Your task to perform on an android device: turn off notifications in google photos Image 0: 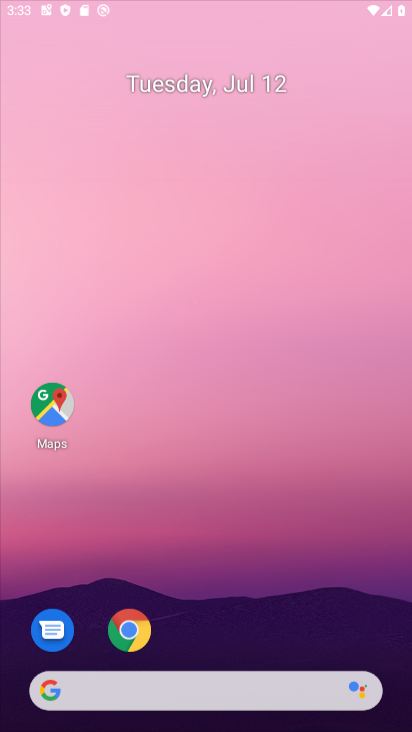
Step 0: click (174, 67)
Your task to perform on an android device: turn off notifications in google photos Image 1: 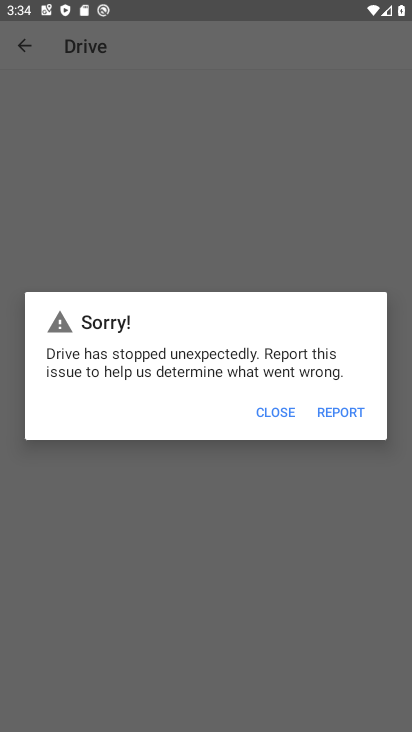
Step 1: click (274, 396)
Your task to perform on an android device: turn off notifications in google photos Image 2: 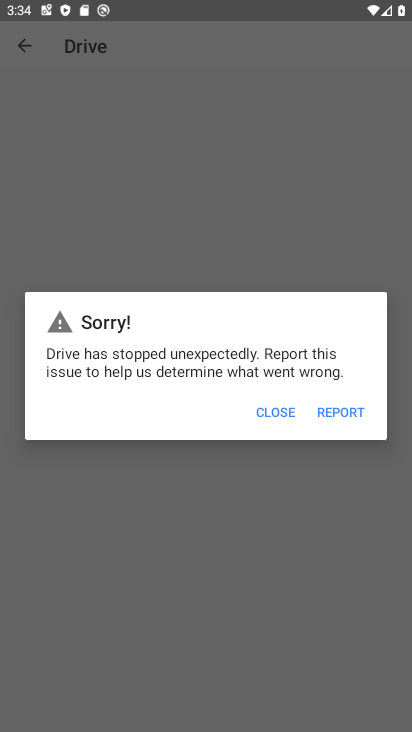
Step 2: click (274, 398)
Your task to perform on an android device: turn off notifications in google photos Image 3: 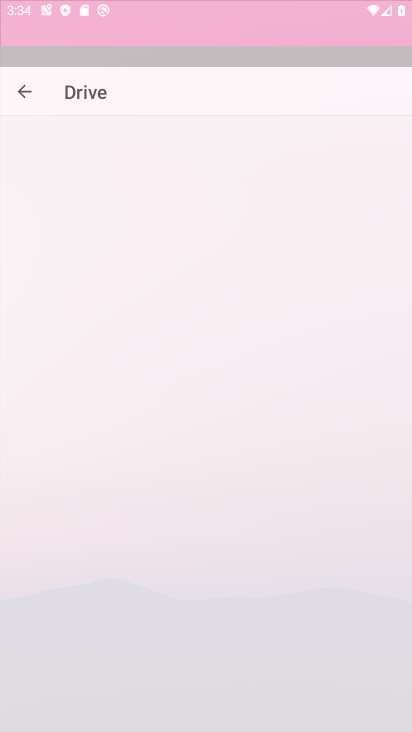
Step 3: click (275, 402)
Your task to perform on an android device: turn off notifications in google photos Image 4: 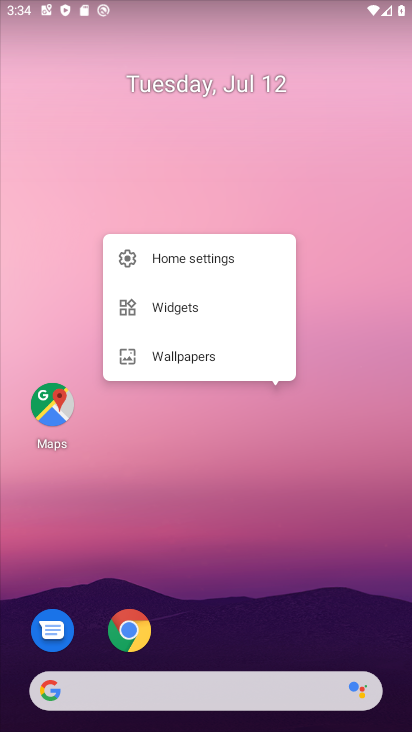
Step 4: drag from (246, 412) to (128, 3)
Your task to perform on an android device: turn off notifications in google photos Image 5: 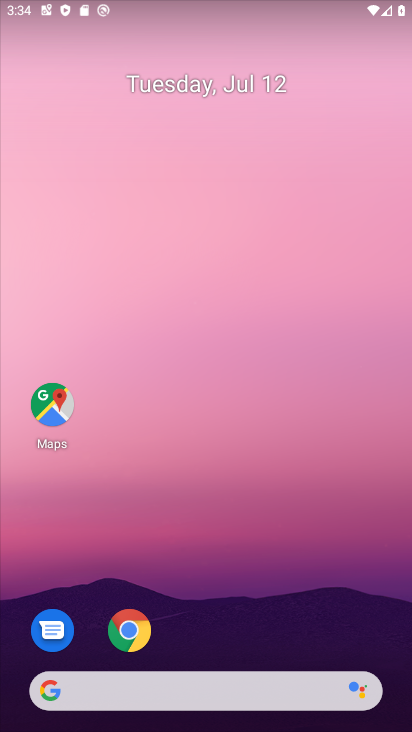
Step 5: drag from (217, 530) to (182, 187)
Your task to perform on an android device: turn off notifications in google photos Image 6: 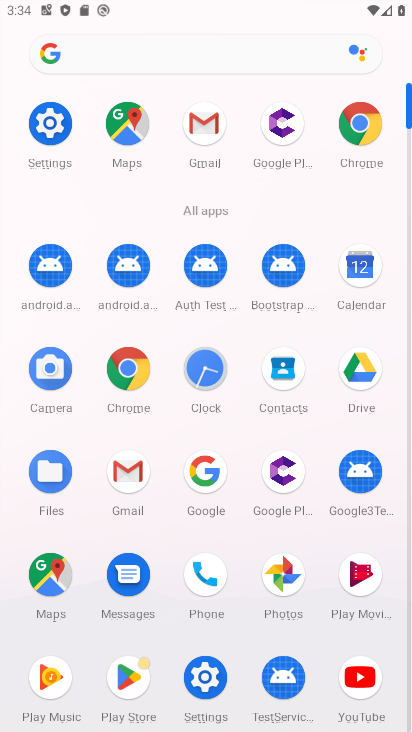
Step 6: click (287, 572)
Your task to perform on an android device: turn off notifications in google photos Image 7: 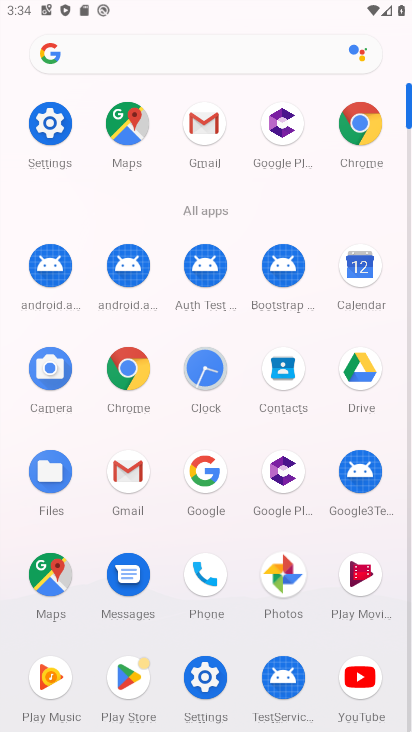
Step 7: click (290, 573)
Your task to perform on an android device: turn off notifications in google photos Image 8: 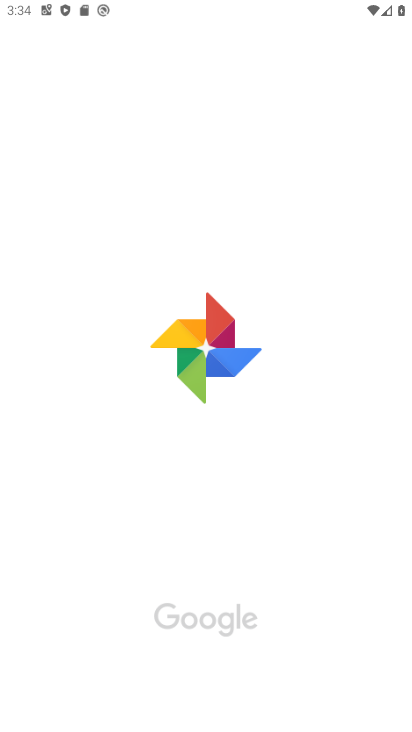
Step 8: click (294, 573)
Your task to perform on an android device: turn off notifications in google photos Image 9: 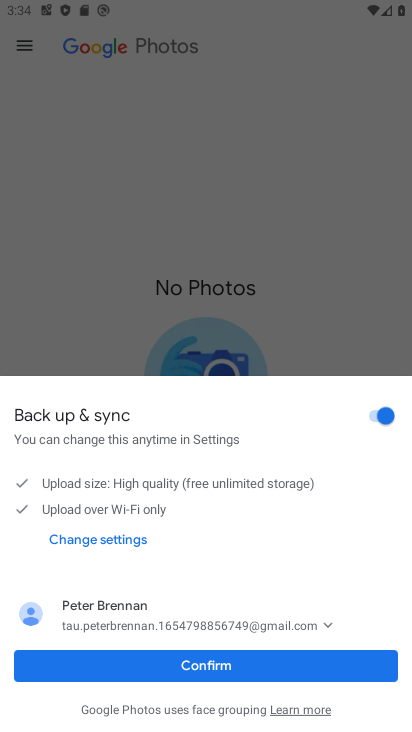
Step 9: click (208, 670)
Your task to perform on an android device: turn off notifications in google photos Image 10: 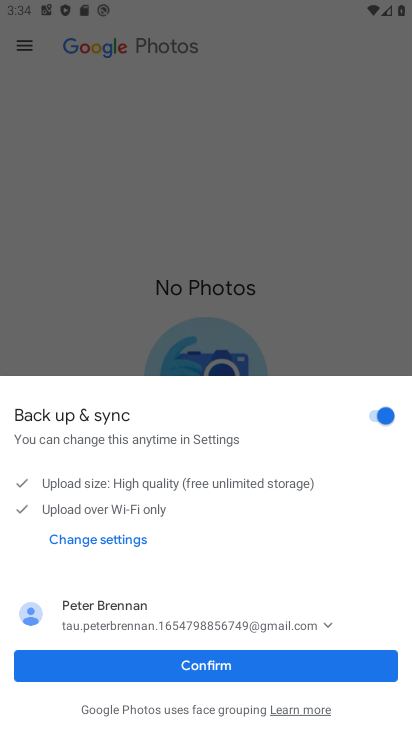
Step 10: click (346, 118)
Your task to perform on an android device: turn off notifications in google photos Image 11: 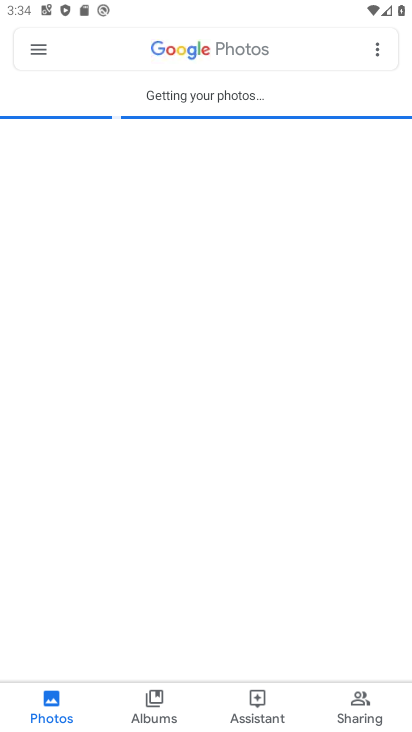
Step 11: click (33, 25)
Your task to perform on an android device: turn off notifications in google photos Image 12: 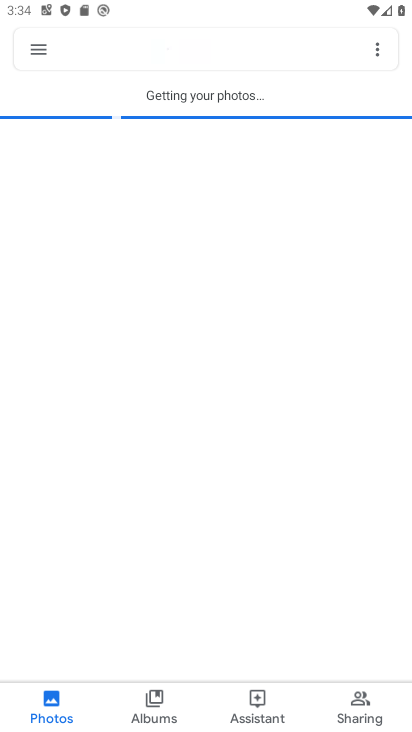
Step 12: click (51, 49)
Your task to perform on an android device: turn off notifications in google photos Image 13: 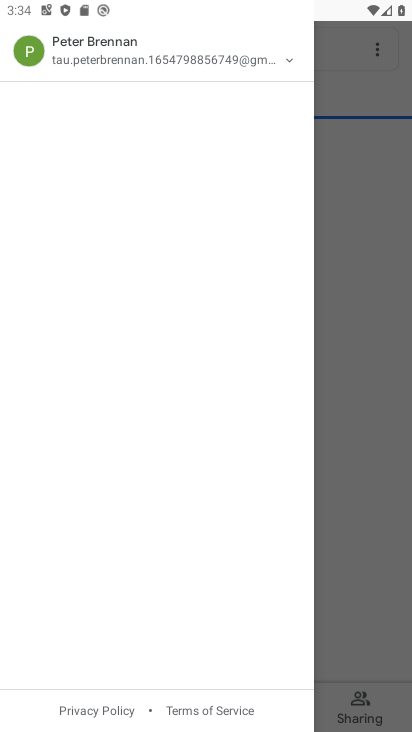
Step 13: click (52, 52)
Your task to perform on an android device: turn off notifications in google photos Image 14: 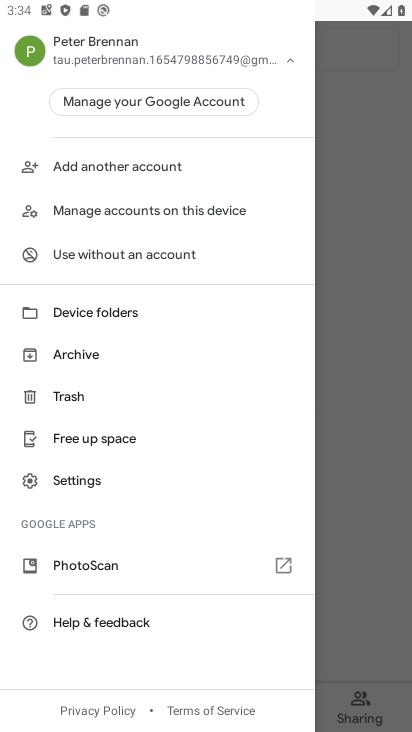
Step 14: click (70, 485)
Your task to perform on an android device: turn off notifications in google photos Image 15: 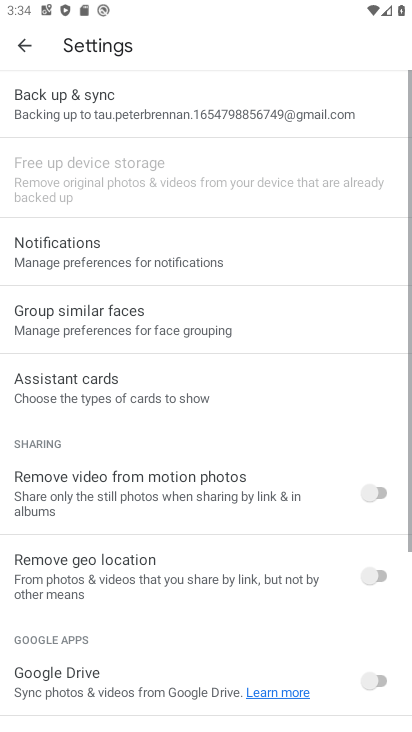
Step 15: click (71, 486)
Your task to perform on an android device: turn off notifications in google photos Image 16: 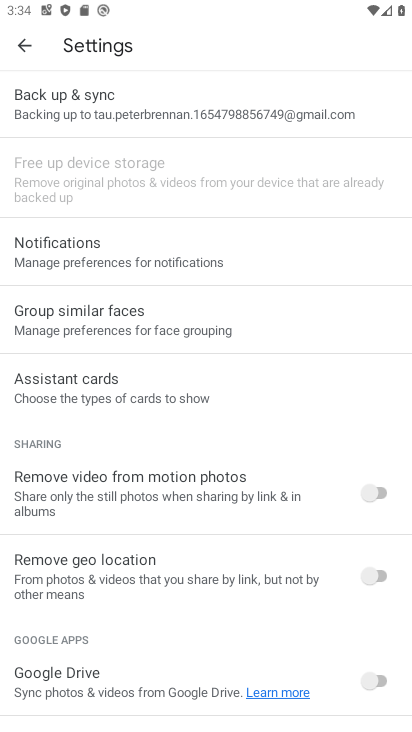
Step 16: click (78, 247)
Your task to perform on an android device: turn off notifications in google photos Image 17: 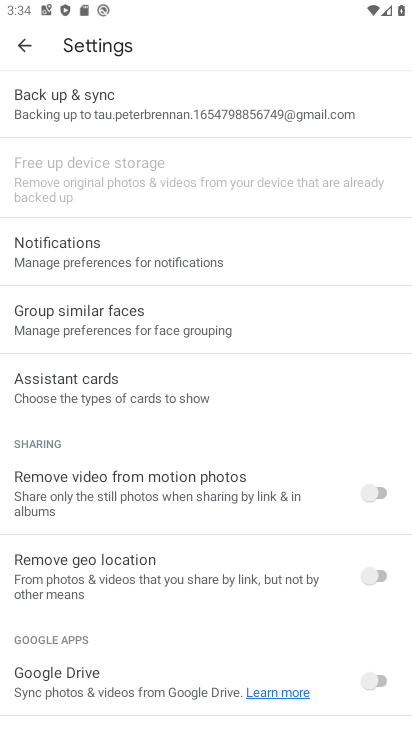
Step 17: click (78, 247)
Your task to perform on an android device: turn off notifications in google photos Image 18: 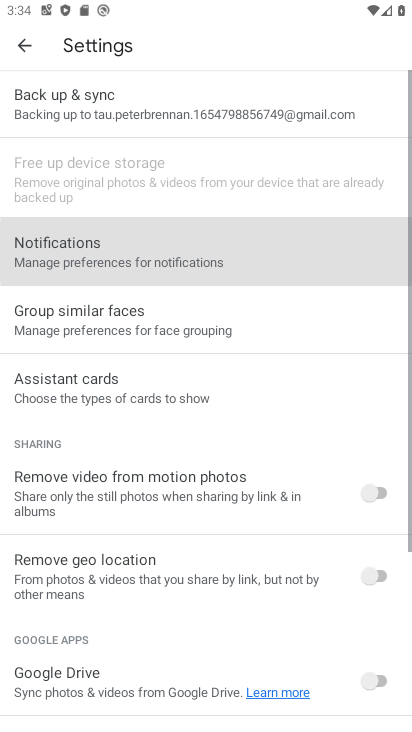
Step 18: click (78, 247)
Your task to perform on an android device: turn off notifications in google photos Image 19: 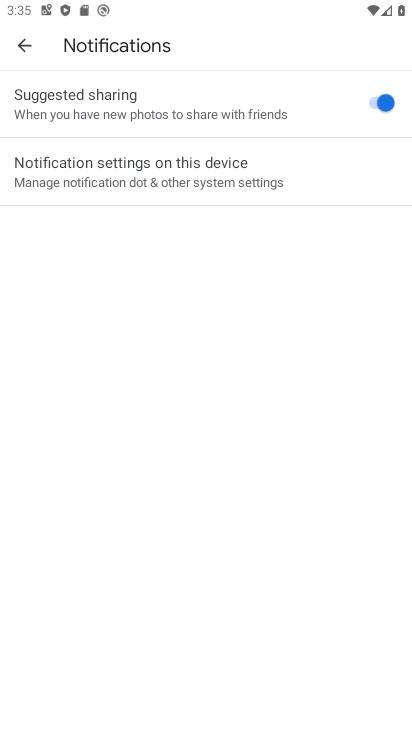
Step 19: click (209, 175)
Your task to perform on an android device: turn off notifications in google photos Image 20: 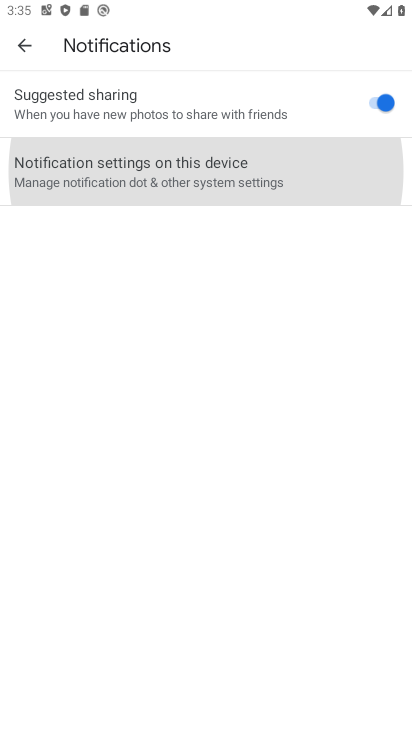
Step 20: click (208, 175)
Your task to perform on an android device: turn off notifications in google photos Image 21: 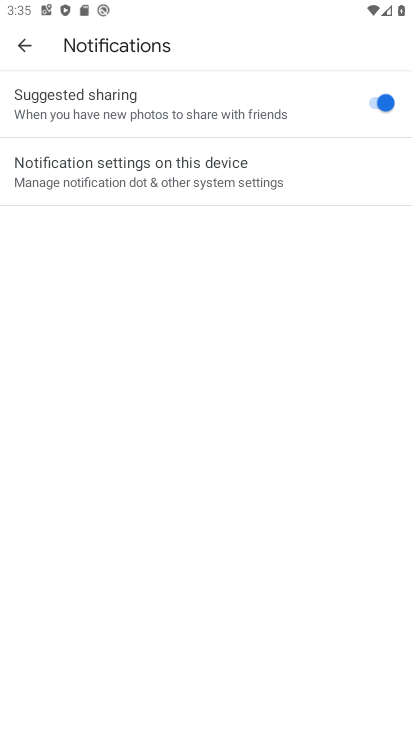
Step 21: click (208, 175)
Your task to perform on an android device: turn off notifications in google photos Image 22: 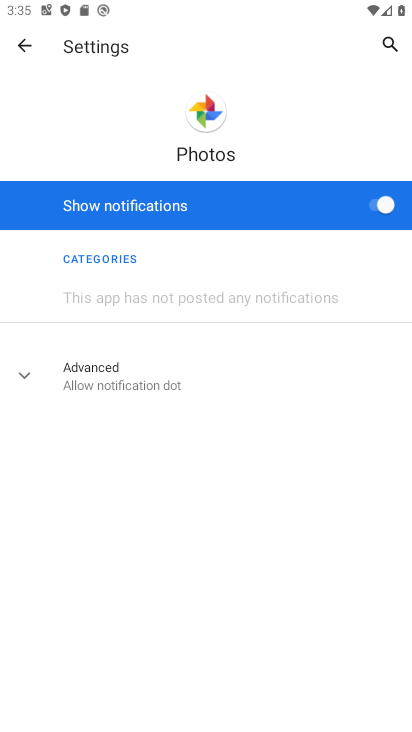
Step 22: click (376, 201)
Your task to perform on an android device: turn off notifications in google photos Image 23: 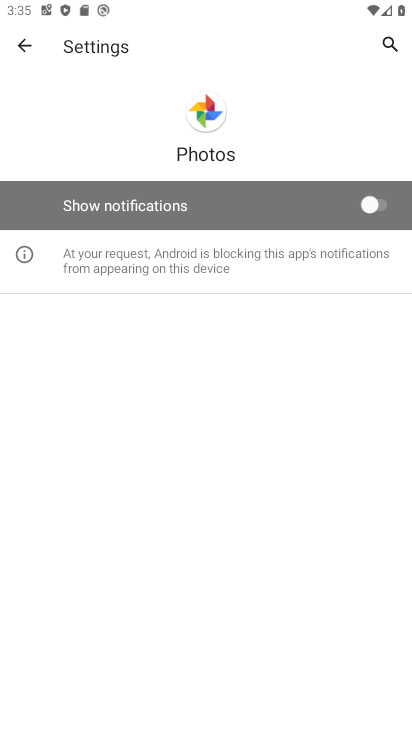
Step 23: task complete